Your task to perform on an android device: Open the stopwatch Image 0: 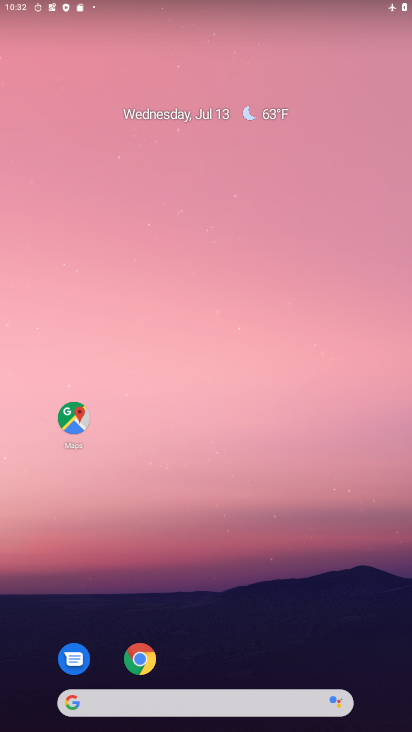
Step 0: drag from (333, 590) to (330, 77)
Your task to perform on an android device: Open the stopwatch Image 1: 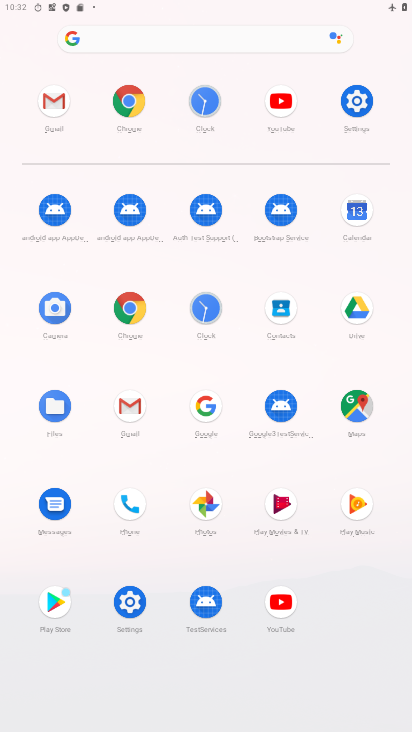
Step 1: click (212, 311)
Your task to perform on an android device: Open the stopwatch Image 2: 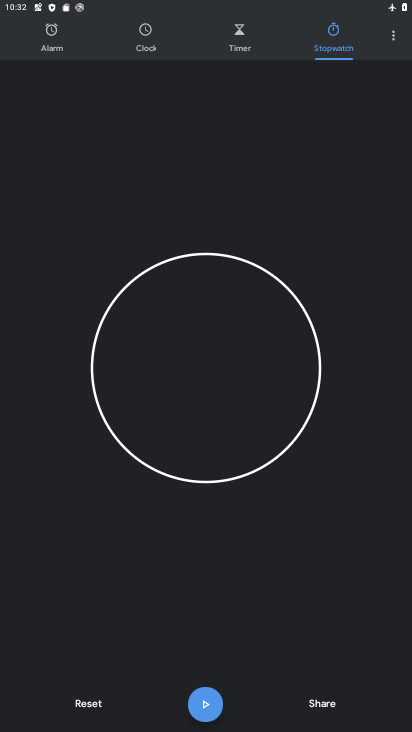
Step 2: task complete